Your task to perform on an android device: What's on my calendar today? Image 0: 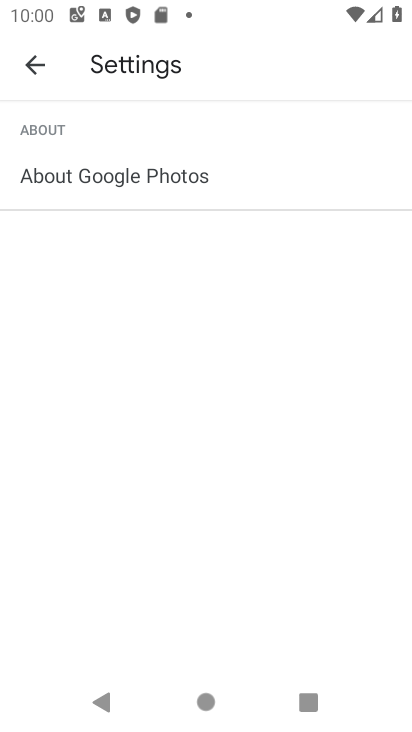
Step 0: press home button
Your task to perform on an android device: What's on my calendar today? Image 1: 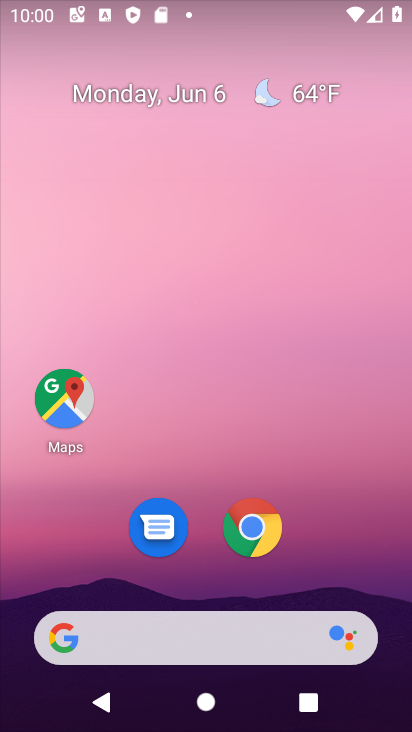
Step 1: drag from (205, 665) to (224, 178)
Your task to perform on an android device: What's on my calendar today? Image 2: 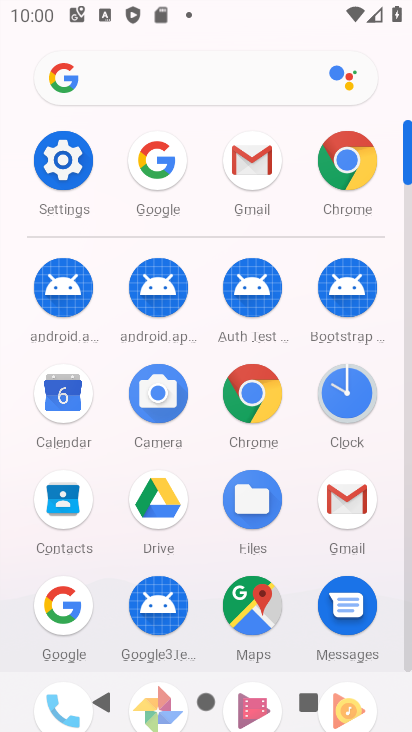
Step 2: click (69, 387)
Your task to perform on an android device: What's on my calendar today? Image 3: 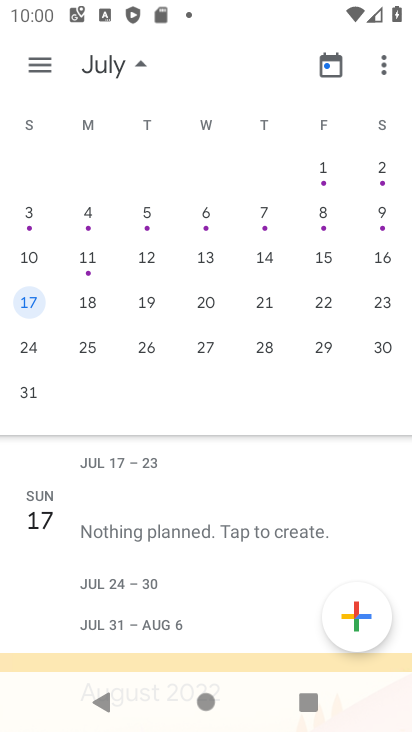
Step 3: drag from (45, 306) to (411, 299)
Your task to perform on an android device: What's on my calendar today? Image 4: 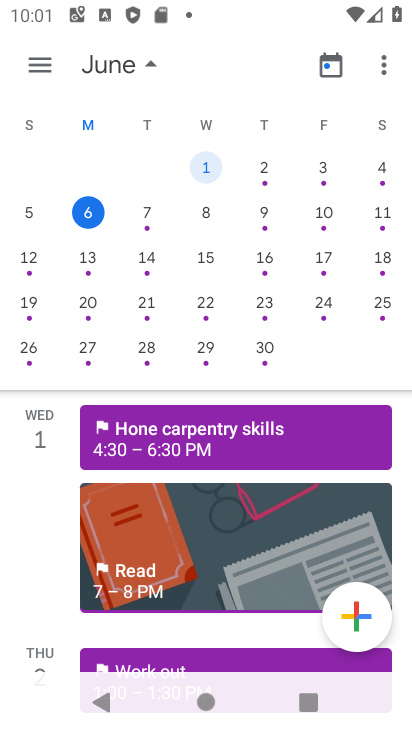
Step 4: click (84, 218)
Your task to perform on an android device: What's on my calendar today? Image 5: 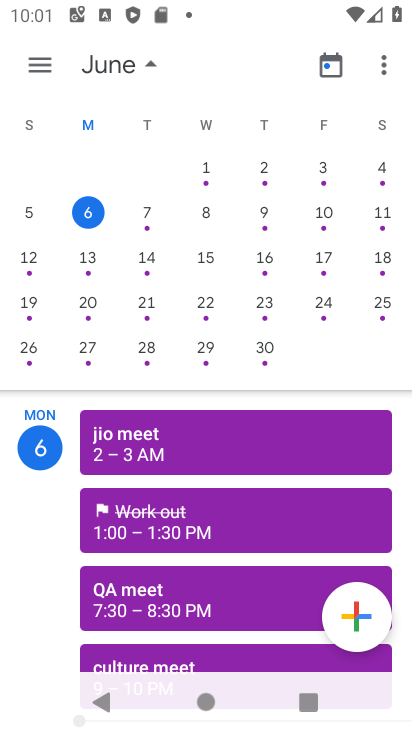
Step 5: task complete